Your task to perform on an android device: check out phone information Image 0: 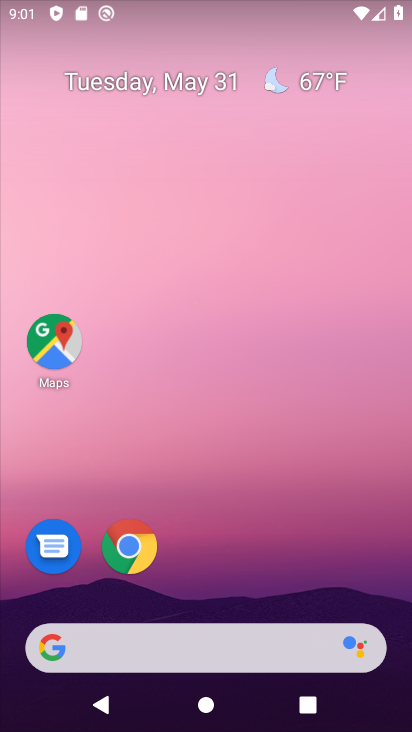
Step 0: drag from (208, 594) to (267, 41)
Your task to perform on an android device: check out phone information Image 1: 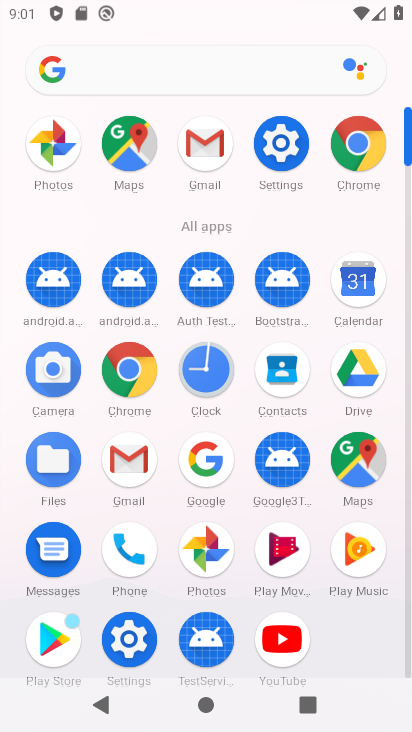
Step 1: click (280, 186)
Your task to perform on an android device: check out phone information Image 2: 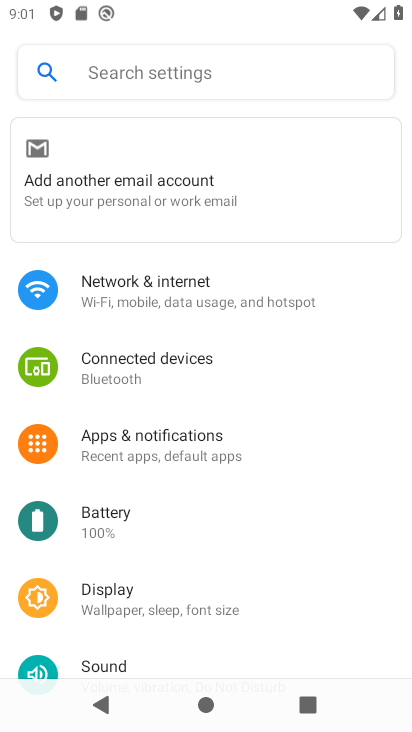
Step 2: drag from (154, 597) to (225, 231)
Your task to perform on an android device: check out phone information Image 3: 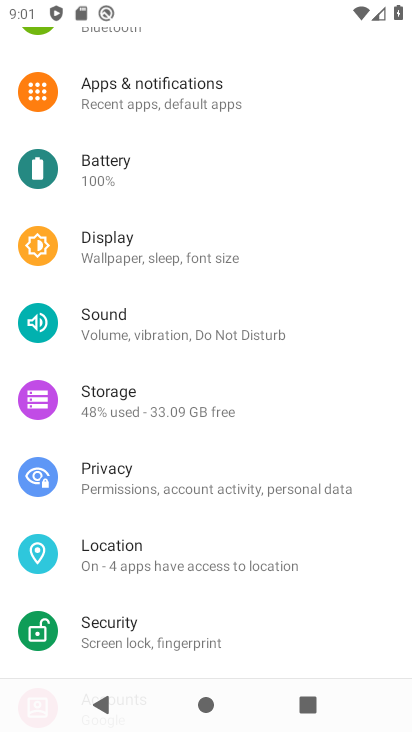
Step 3: drag from (150, 607) to (252, 129)
Your task to perform on an android device: check out phone information Image 4: 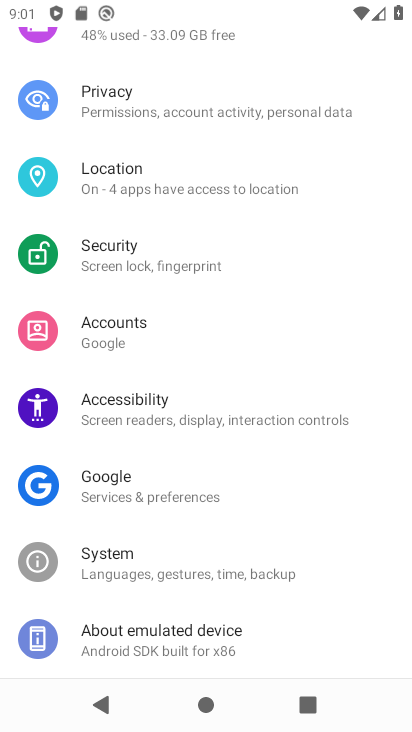
Step 4: click (170, 643)
Your task to perform on an android device: check out phone information Image 5: 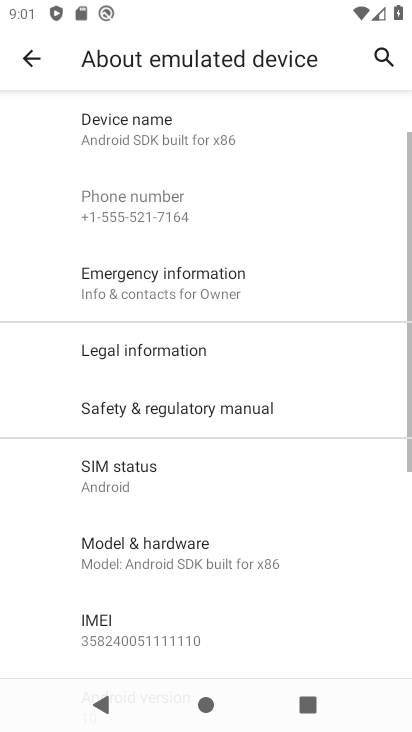
Step 5: task complete